Your task to perform on an android device: refresh tabs in the chrome app Image 0: 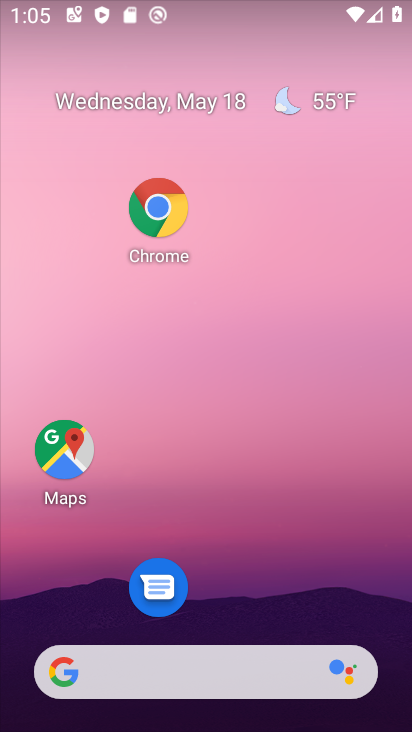
Step 0: click (149, 255)
Your task to perform on an android device: refresh tabs in the chrome app Image 1: 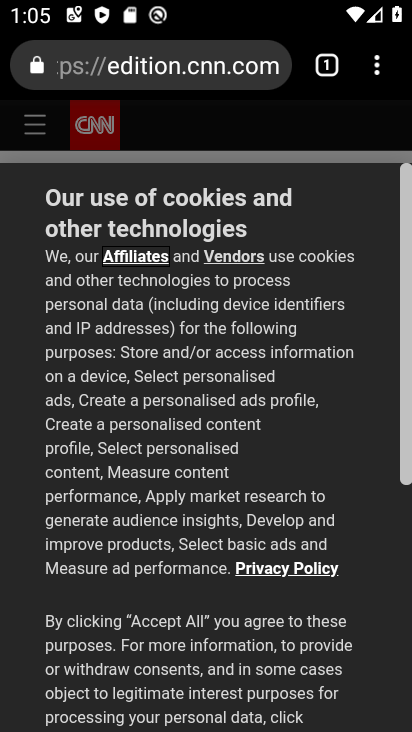
Step 1: click (380, 75)
Your task to perform on an android device: refresh tabs in the chrome app Image 2: 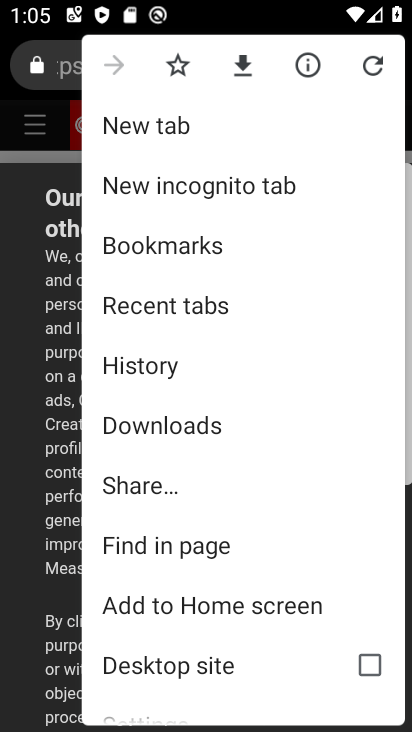
Step 2: click (366, 77)
Your task to perform on an android device: refresh tabs in the chrome app Image 3: 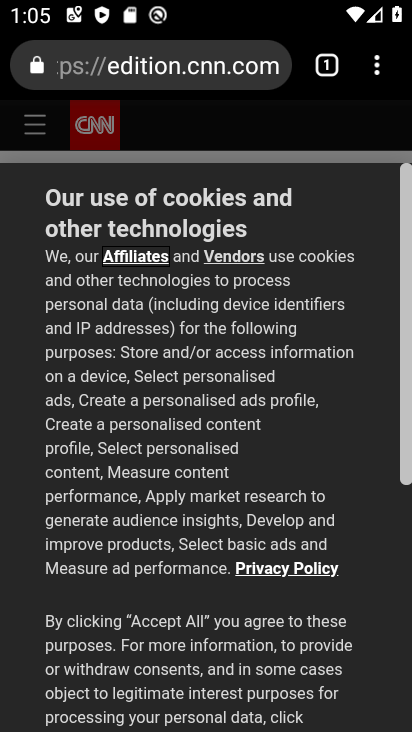
Step 3: task complete